Your task to perform on an android device: change the clock style Image 0: 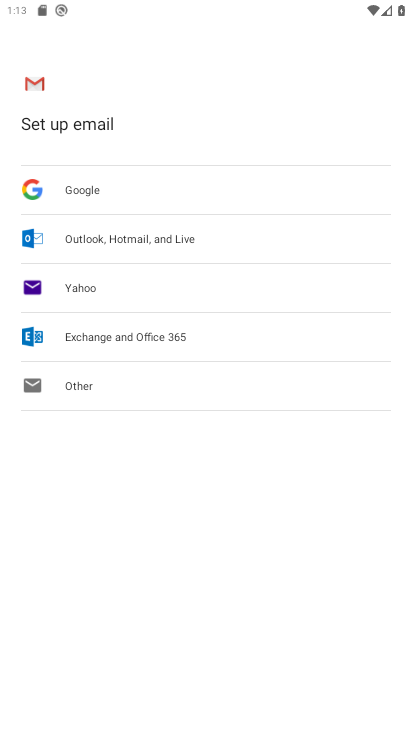
Step 0: press home button
Your task to perform on an android device: change the clock style Image 1: 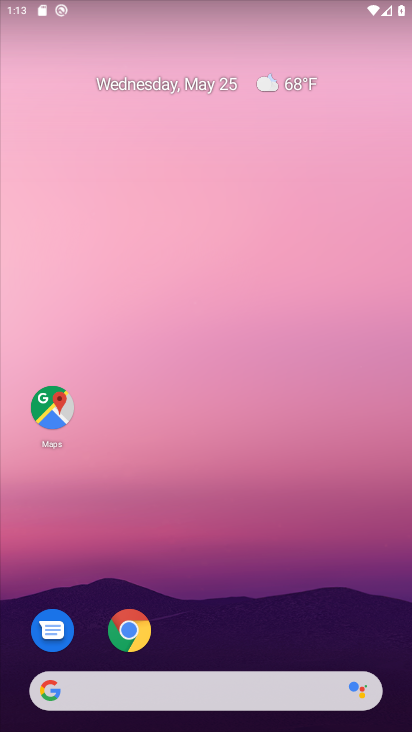
Step 1: drag from (216, 561) to (224, 77)
Your task to perform on an android device: change the clock style Image 2: 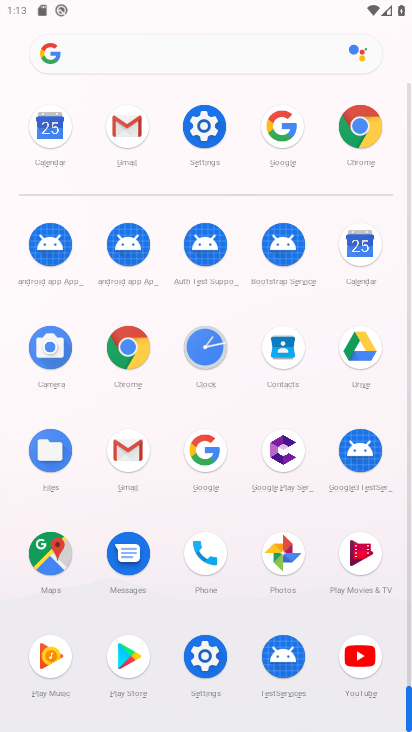
Step 2: click (219, 362)
Your task to perform on an android device: change the clock style Image 3: 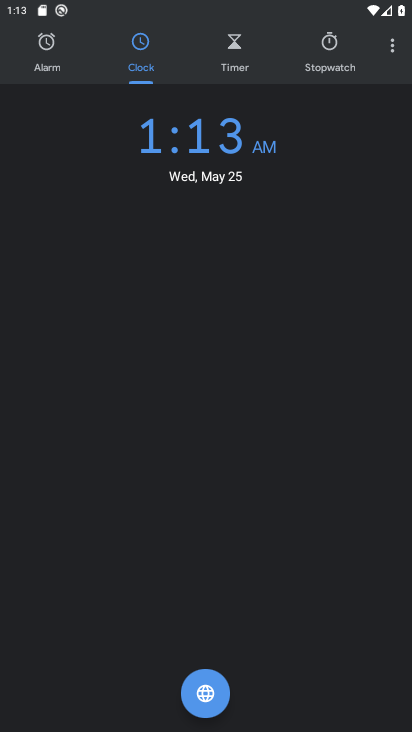
Step 3: click (388, 45)
Your task to perform on an android device: change the clock style Image 4: 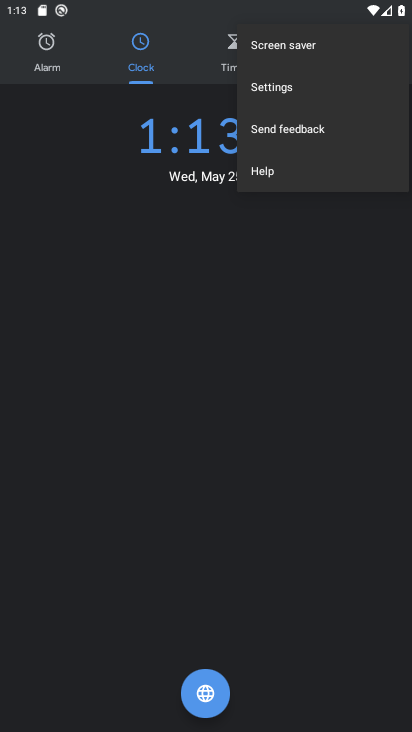
Step 4: click (281, 87)
Your task to perform on an android device: change the clock style Image 5: 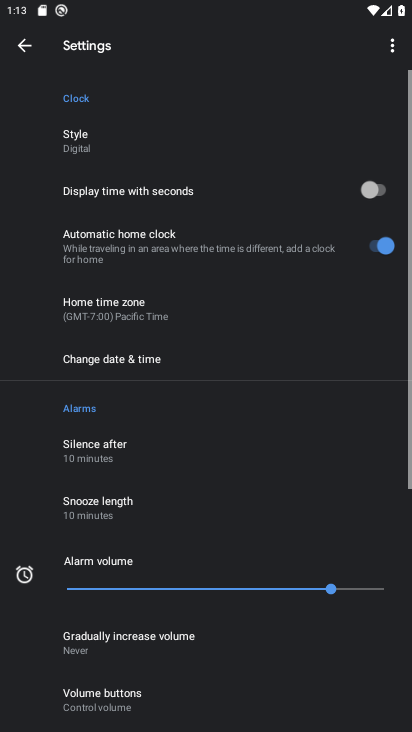
Step 5: click (111, 144)
Your task to perform on an android device: change the clock style Image 6: 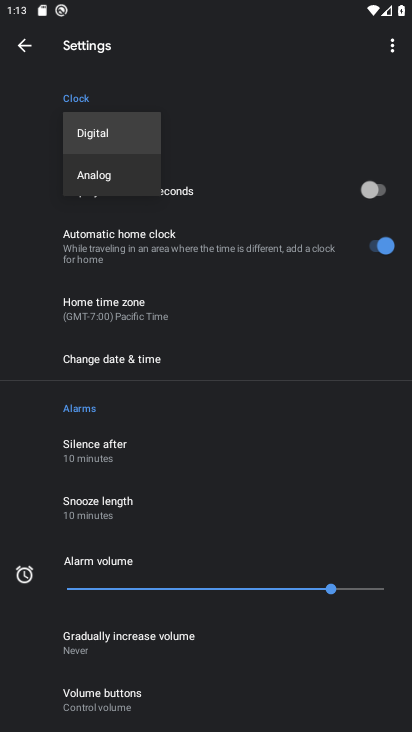
Step 6: click (119, 183)
Your task to perform on an android device: change the clock style Image 7: 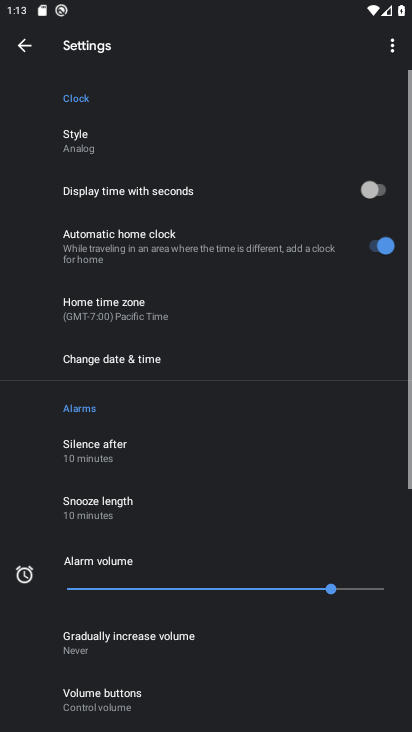
Step 7: task complete